Your task to perform on an android device: check android version Image 0: 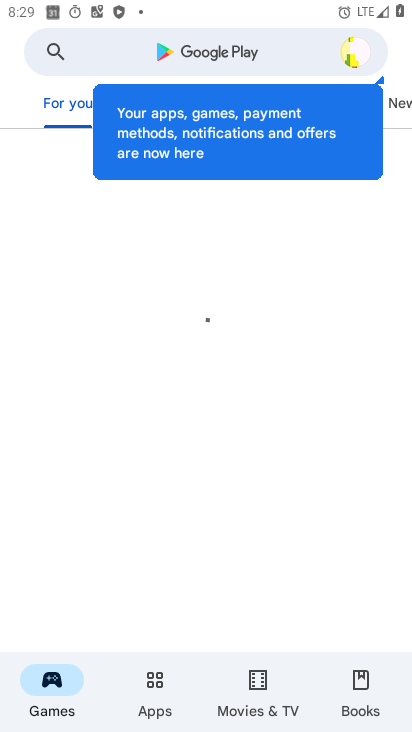
Step 0: press home button
Your task to perform on an android device: check android version Image 1: 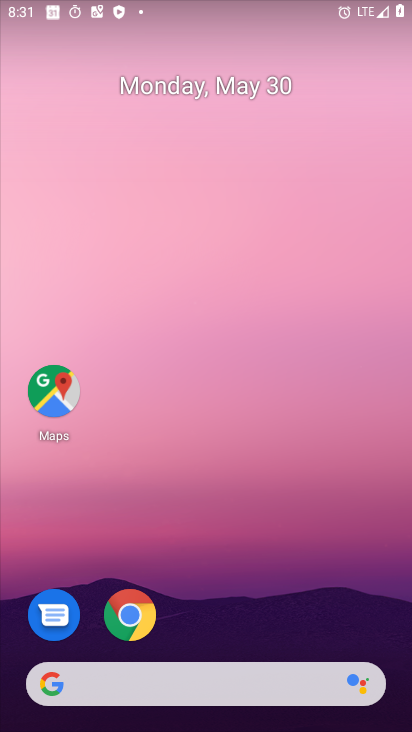
Step 1: drag from (292, 539) to (313, 155)
Your task to perform on an android device: check android version Image 2: 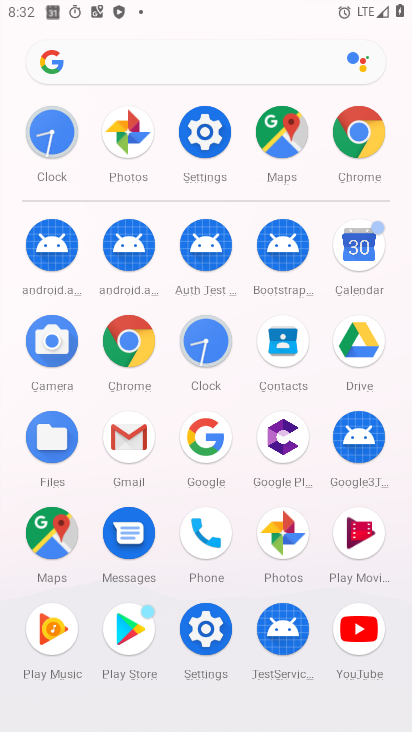
Step 2: click (206, 129)
Your task to perform on an android device: check android version Image 3: 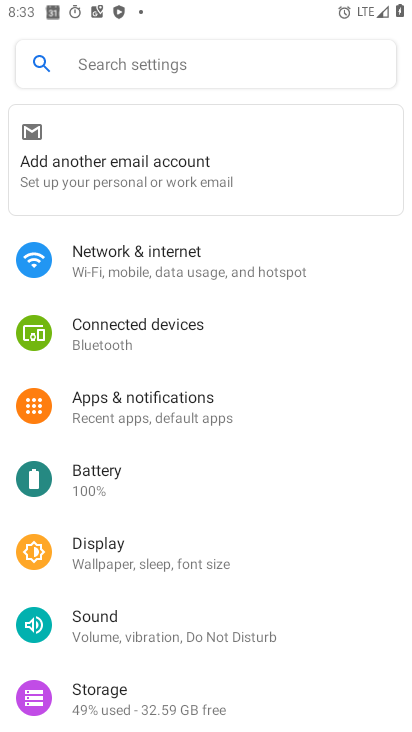
Step 3: drag from (186, 563) to (270, 299)
Your task to perform on an android device: check android version Image 4: 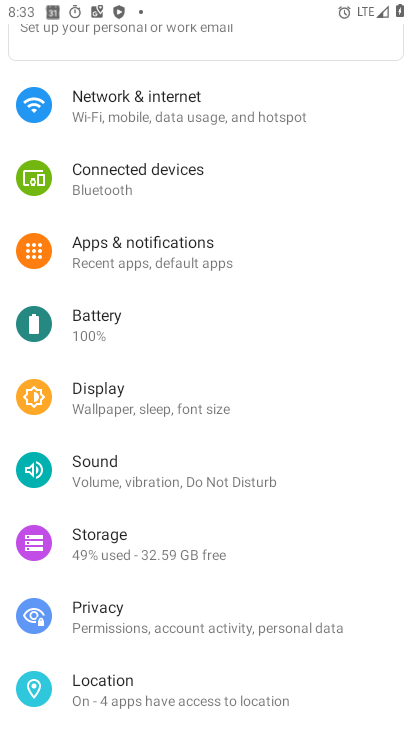
Step 4: drag from (174, 630) to (239, 244)
Your task to perform on an android device: check android version Image 5: 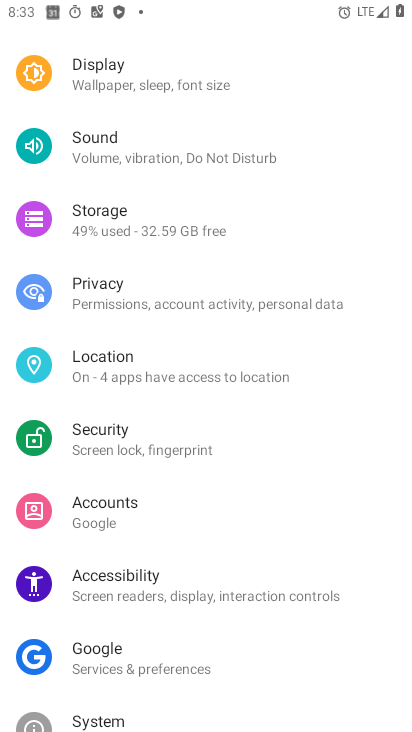
Step 5: drag from (156, 589) to (234, 240)
Your task to perform on an android device: check android version Image 6: 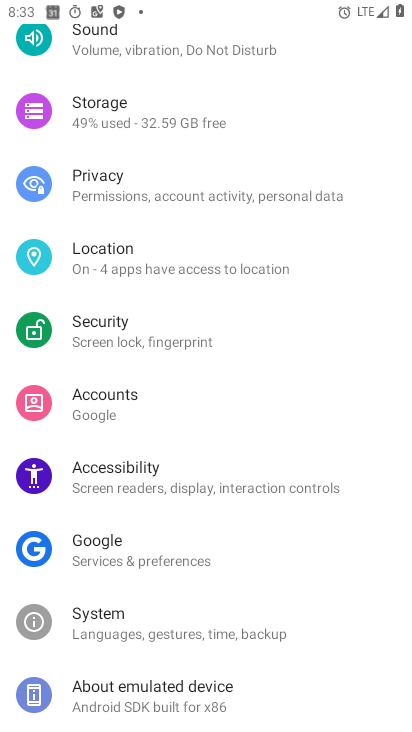
Step 6: drag from (200, 620) to (257, 203)
Your task to perform on an android device: check android version Image 7: 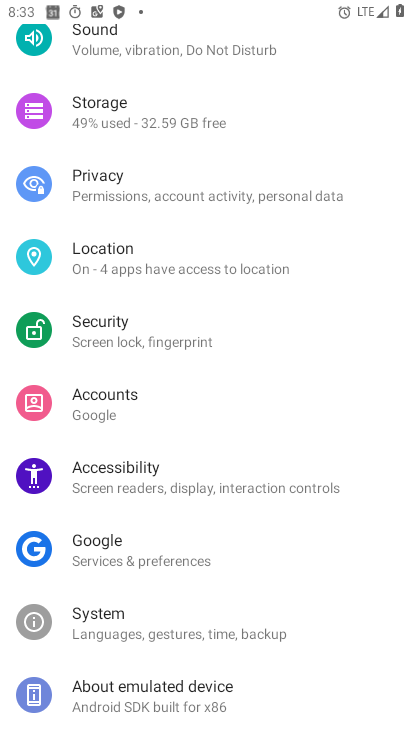
Step 7: click (157, 692)
Your task to perform on an android device: check android version Image 8: 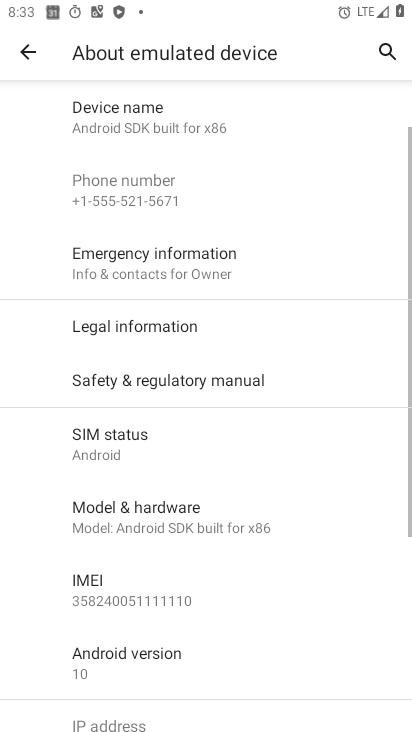
Step 8: click (140, 671)
Your task to perform on an android device: check android version Image 9: 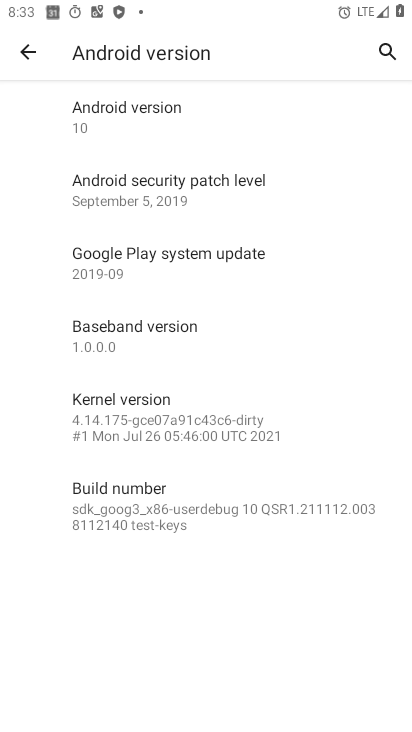
Step 9: task complete